Your task to perform on an android device: see sites visited before in the chrome app Image 0: 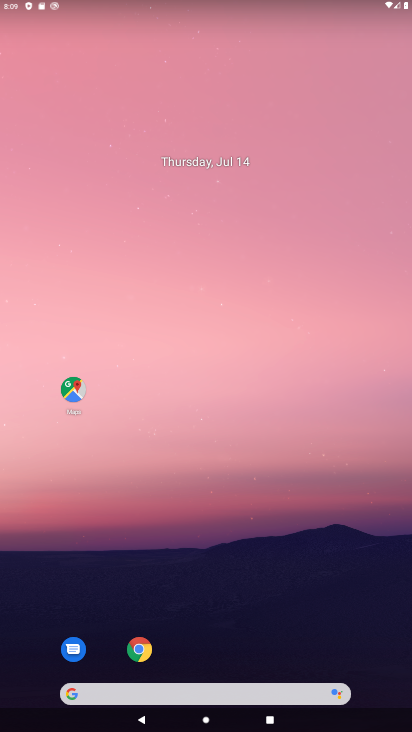
Step 0: click (156, 656)
Your task to perform on an android device: see sites visited before in the chrome app Image 1: 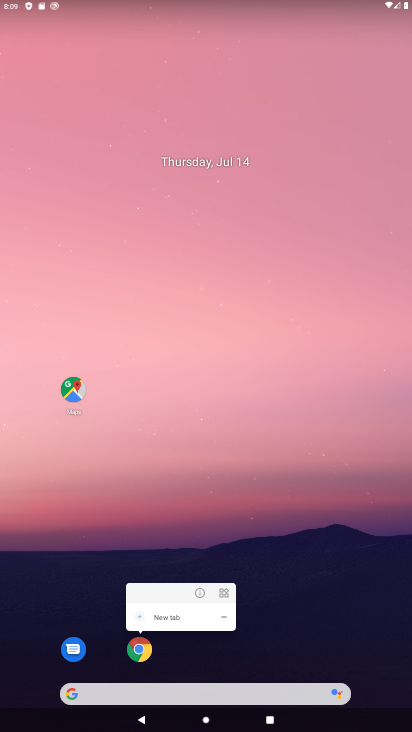
Step 1: click (143, 654)
Your task to perform on an android device: see sites visited before in the chrome app Image 2: 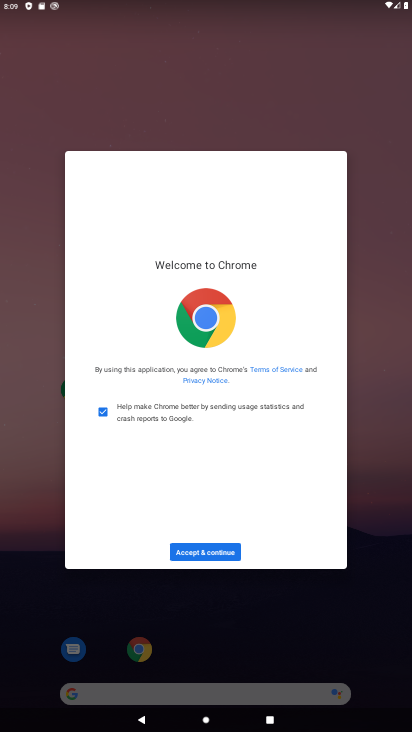
Step 2: click (206, 547)
Your task to perform on an android device: see sites visited before in the chrome app Image 3: 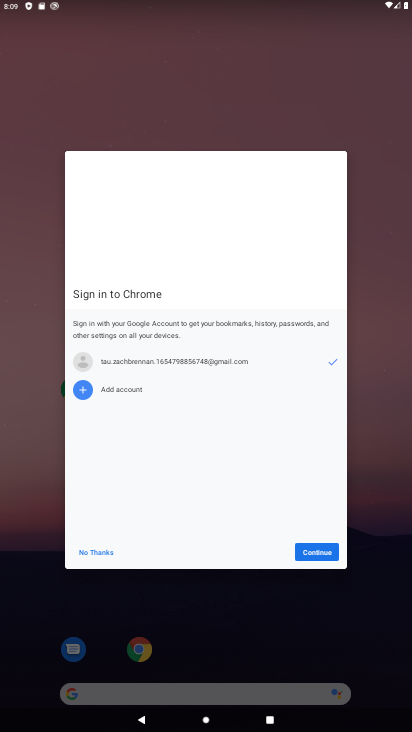
Step 3: click (206, 547)
Your task to perform on an android device: see sites visited before in the chrome app Image 4: 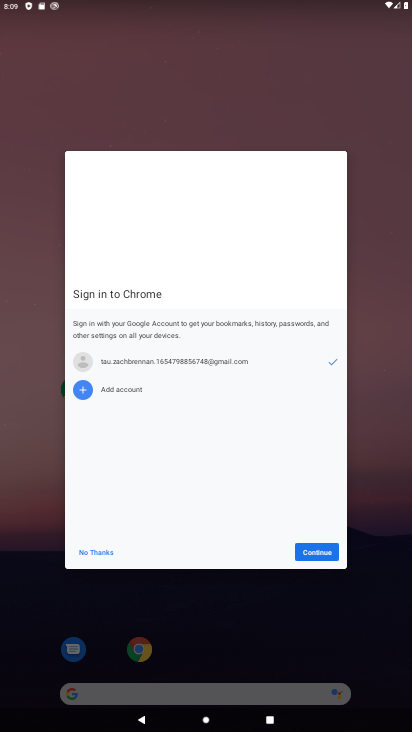
Step 4: click (301, 548)
Your task to perform on an android device: see sites visited before in the chrome app Image 5: 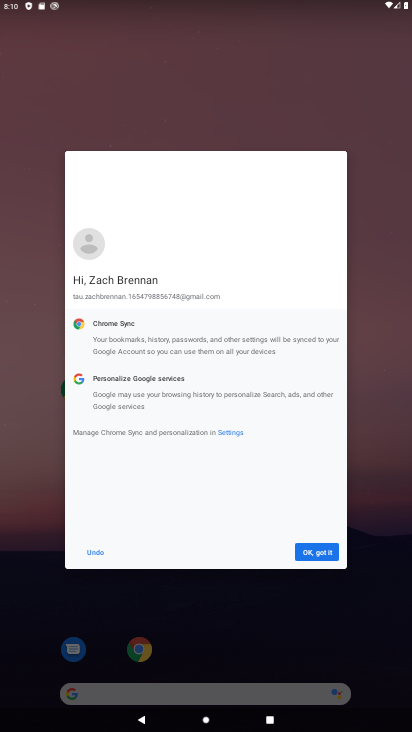
Step 5: click (301, 548)
Your task to perform on an android device: see sites visited before in the chrome app Image 6: 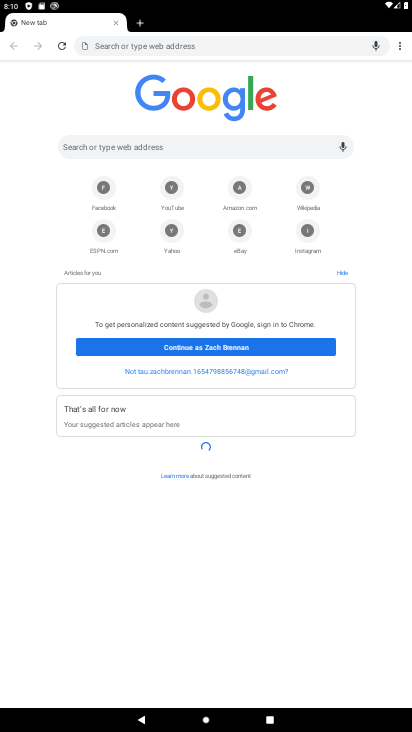
Step 6: click (398, 51)
Your task to perform on an android device: see sites visited before in the chrome app Image 7: 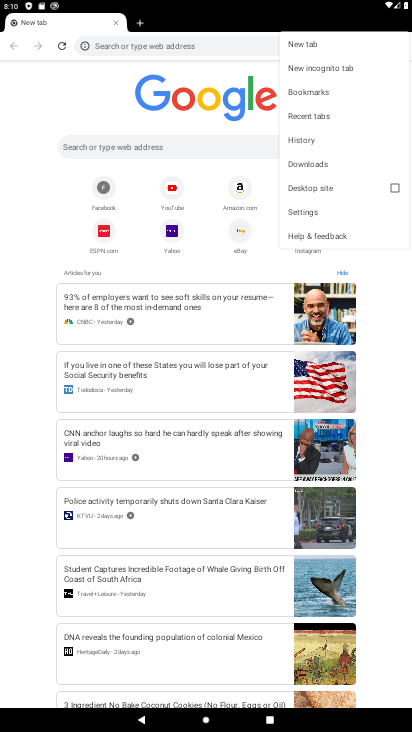
Step 7: click (324, 115)
Your task to perform on an android device: see sites visited before in the chrome app Image 8: 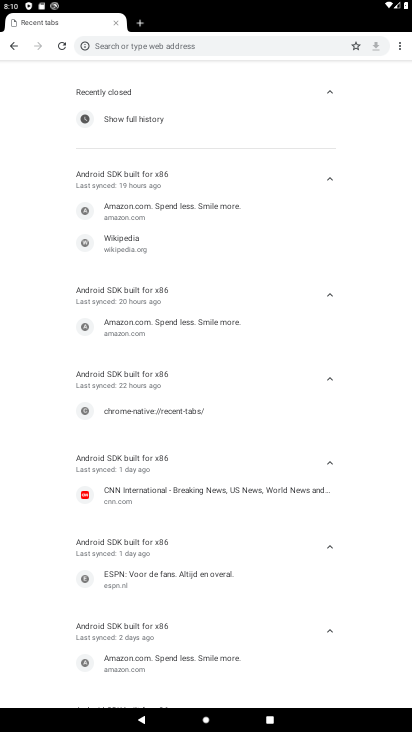
Step 8: task complete